Your task to perform on an android device: Go to sound settings Image 0: 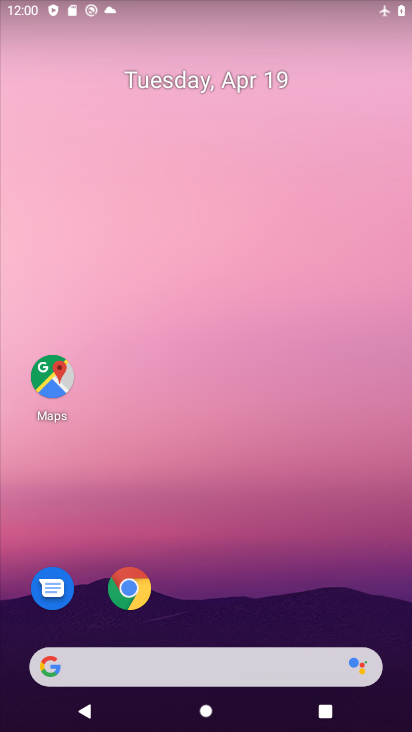
Step 0: drag from (359, 460) to (378, 44)
Your task to perform on an android device: Go to sound settings Image 1: 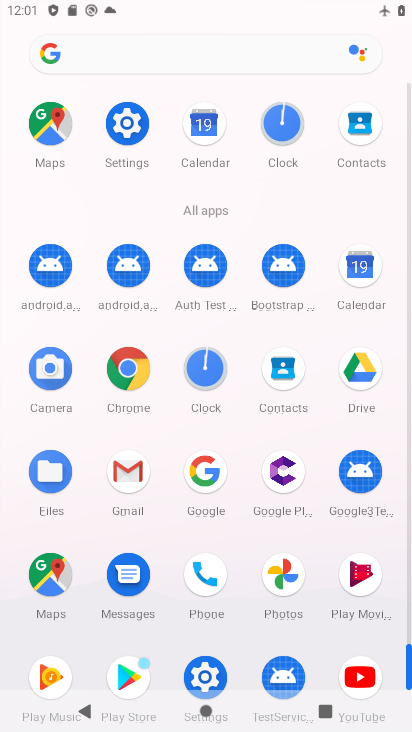
Step 1: click (131, 124)
Your task to perform on an android device: Go to sound settings Image 2: 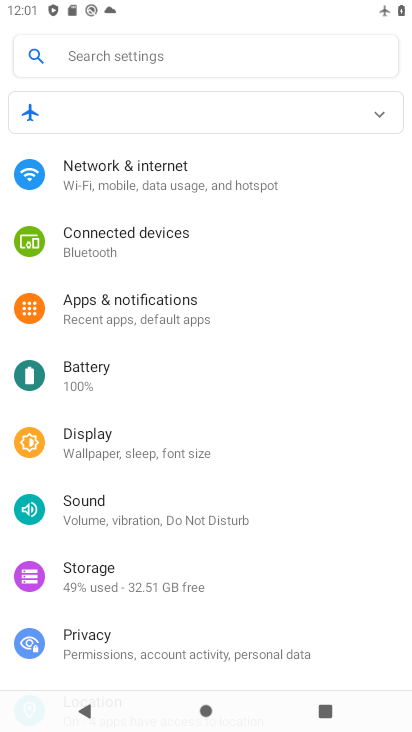
Step 2: click (128, 509)
Your task to perform on an android device: Go to sound settings Image 3: 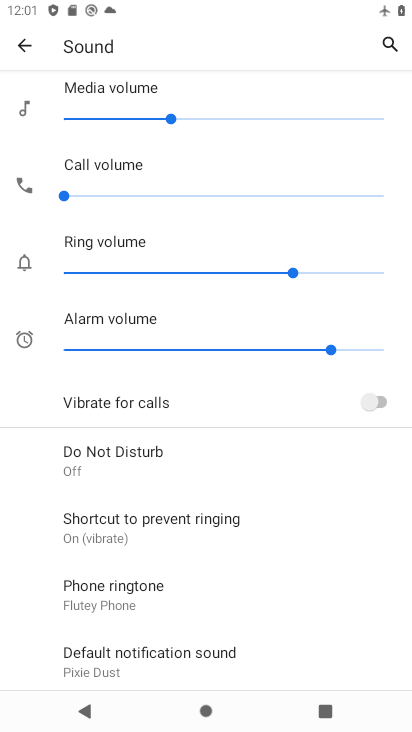
Step 3: task complete